Your task to perform on an android device: turn on javascript in the chrome app Image 0: 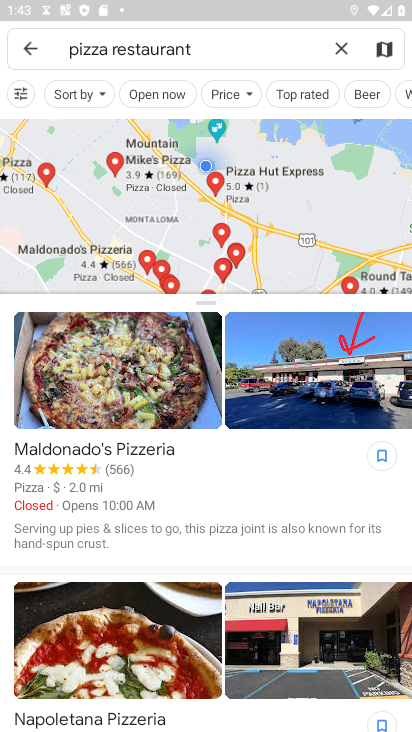
Step 0: press home button
Your task to perform on an android device: turn on javascript in the chrome app Image 1: 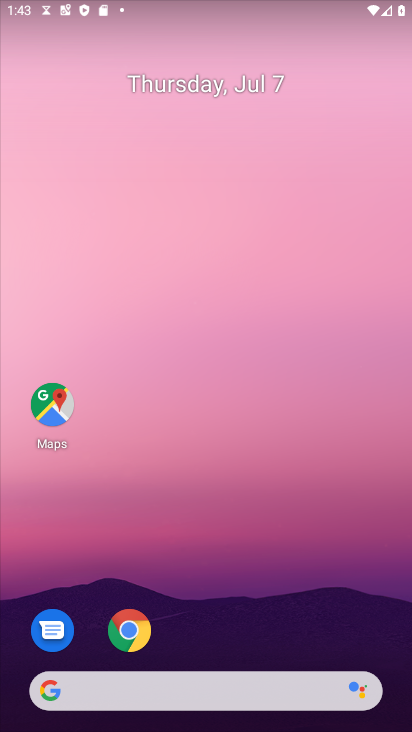
Step 1: click (133, 619)
Your task to perform on an android device: turn on javascript in the chrome app Image 2: 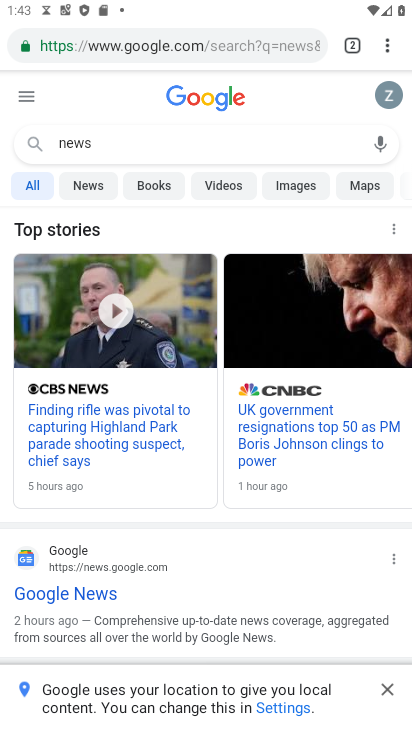
Step 2: click (386, 48)
Your task to perform on an android device: turn on javascript in the chrome app Image 3: 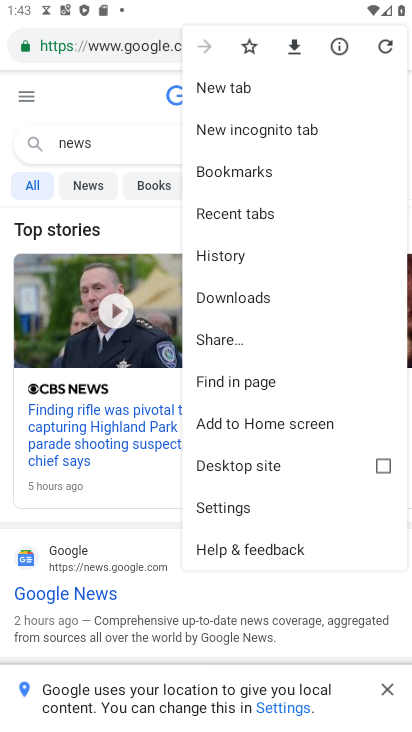
Step 3: click (234, 505)
Your task to perform on an android device: turn on javascript in the chrome app Image 4: 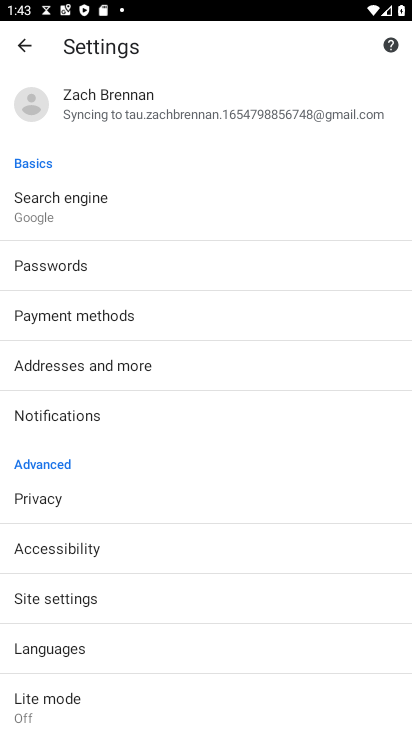
Step 4: click (179, 599)
Your task to perform on an android device: turn on javascript in the chrome app Image 5: 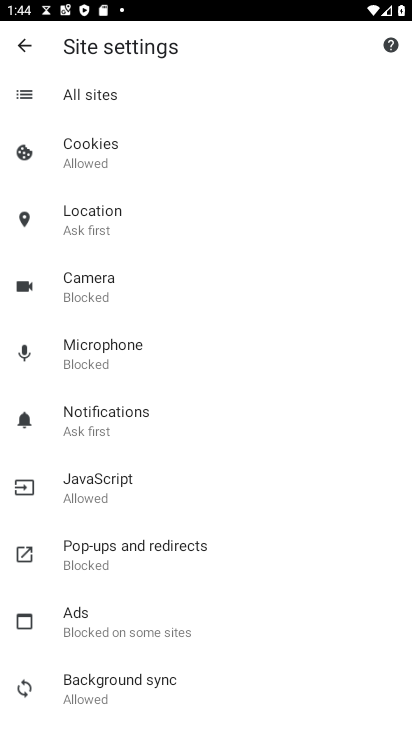
Step 5: click (195, 496)
Your task to perform on an android device: turn on javascript in the chrome app Image 6: 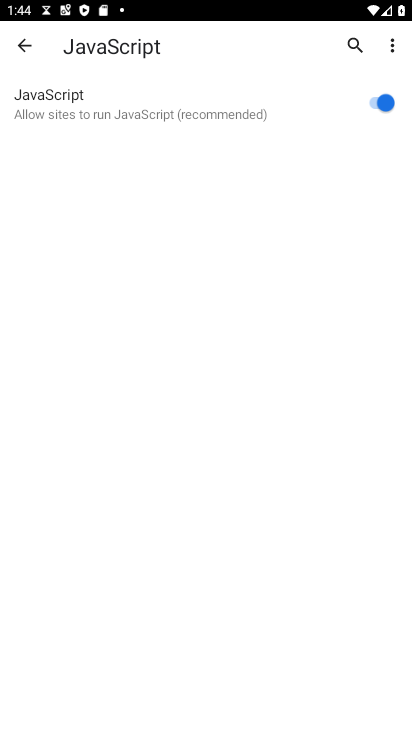
Step 6: task complete